Your task to perform on an android device: Go to Yahoo.com Image 0: 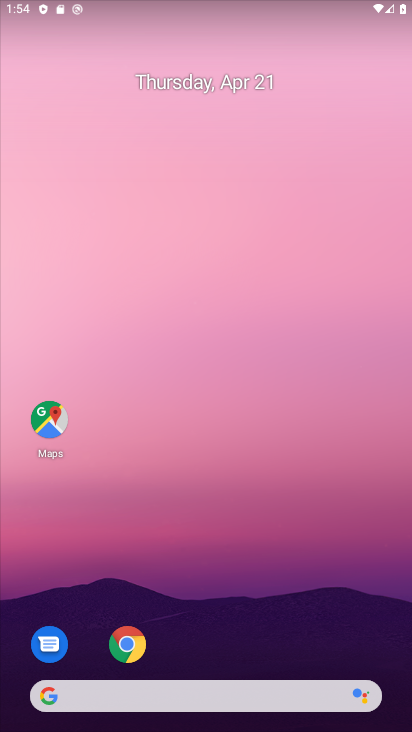
Step 0: click (142, 647)
Your task to perform on an android device: Go to Yahoo.com Image 1: 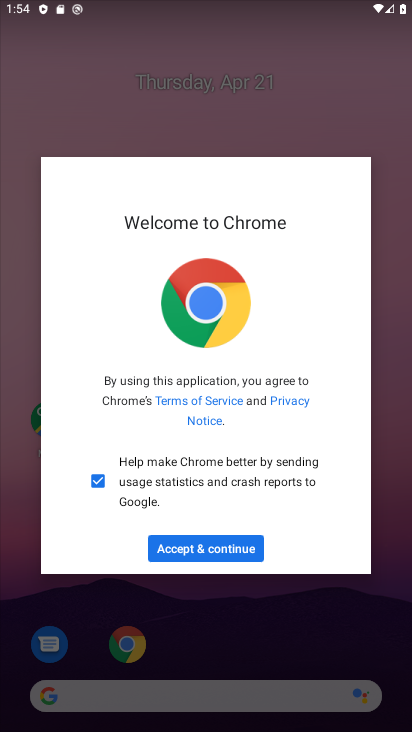
Step 1: click (211, 543)
Your task to perform on an android device: Go to Yahoo.com Image 2: 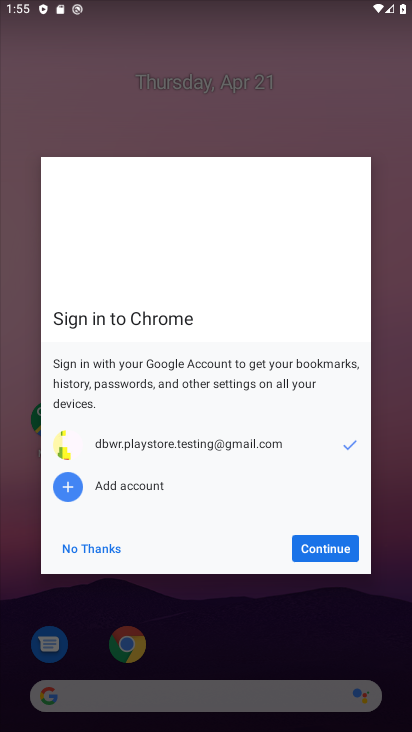
Step 2: click (322, 547)
Your task to perform on an android device: Go to Yahoo.com Image 3: 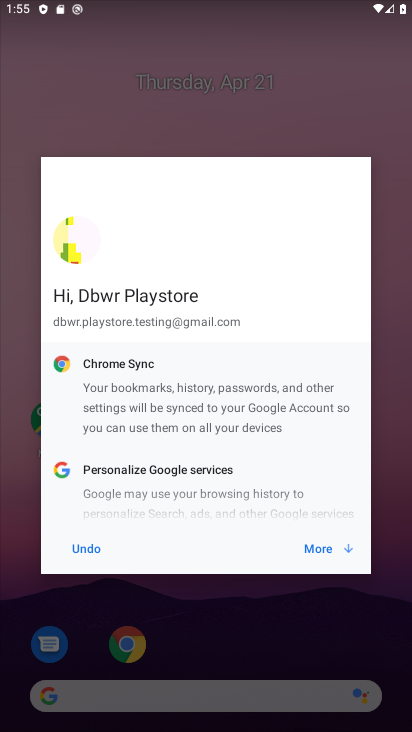
Step 3: click (321, 546)
Your task to perform on an android device: Go to Yahoo.com Image 4: 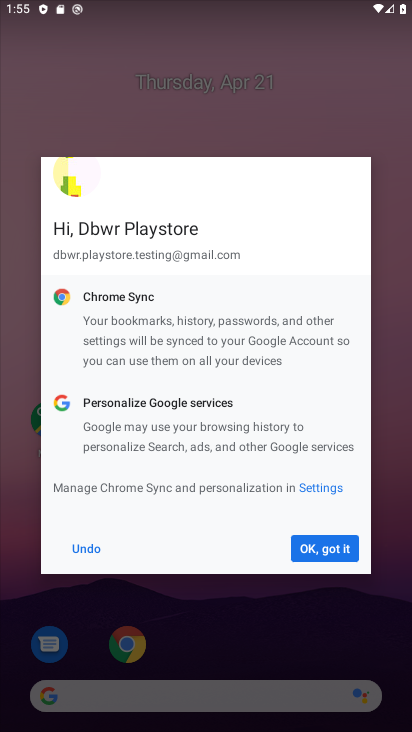
Step 4: click (321, 546)
Your task to perform on an android device: Go to Yahoo.com Image 5: 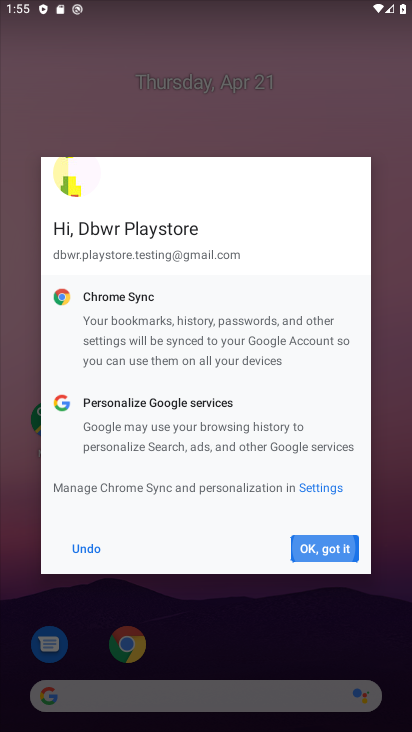
Step 5: click (320, 545)
Your task to perform on an android device: Go to Yahoo.com Image 6: 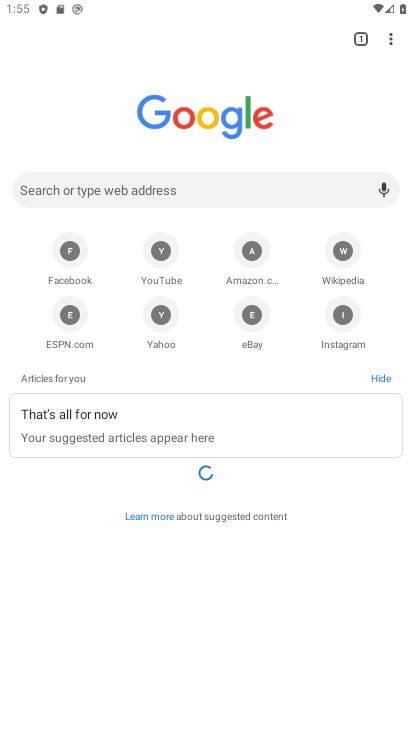
Step 6: click (195, 184)
Your task to perform on an android device: Go to Yahoo.com Image 7: 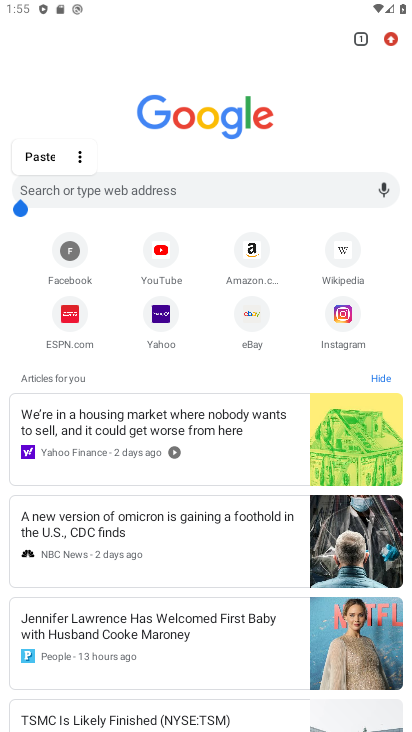
Step 7: click (70, 189)
Your task to perform on an android device: Go to Yahoo.com Image 8: 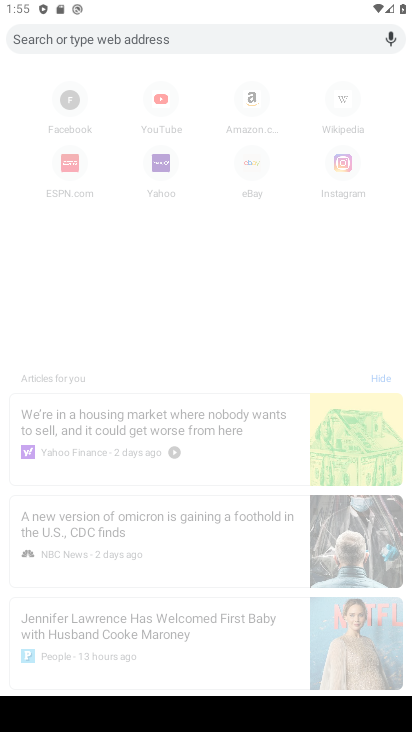
Step 8: type "ya"
Your task to perform on an android device: Go to Yahoo.com Image 9: 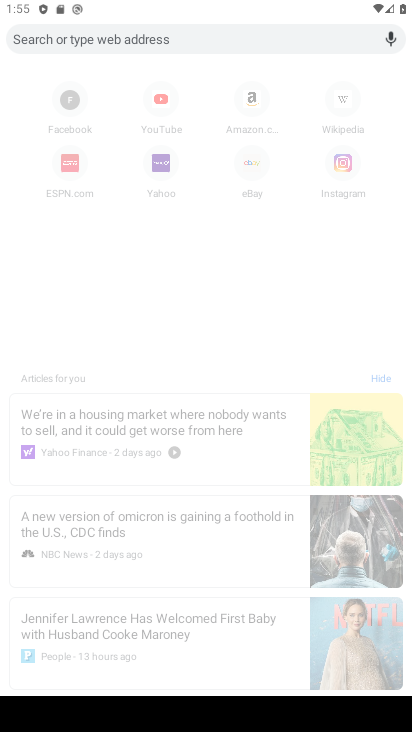
Step 9: click (282, 309)
Your task to perform on an android device: Go to Yahoo.com Image 10: 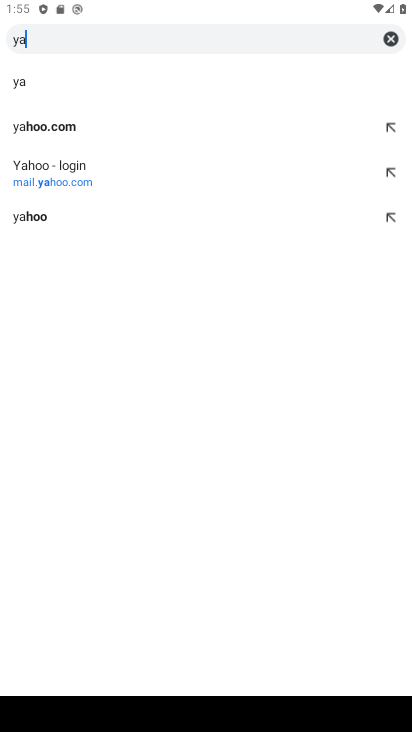
Step 10: click (388, 38)
Your task to perform on an android device: Go to Yahoo.com Image 11: 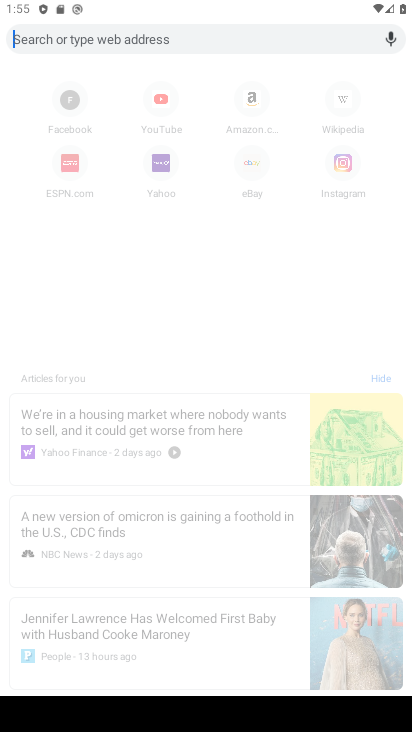
Step 11: click (187, 355)
Your task to perform on an android device: Go to Yahoo.com Image 12: 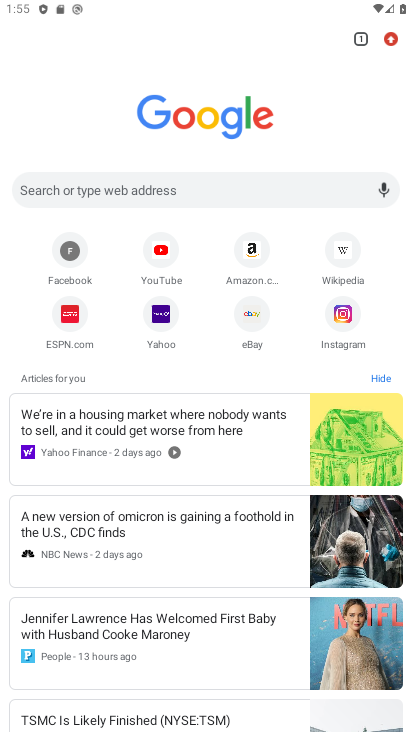
Step 12: click (156, 317)
Your task to perform on an android device: Go to Yahoo.com Image 13: 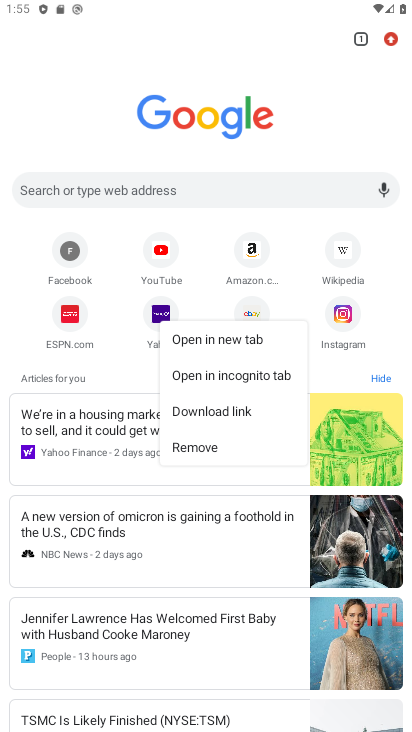
Step 13: click (165, 303)
Your task to perform on an android device: Go to Yahoo.com Image 14: 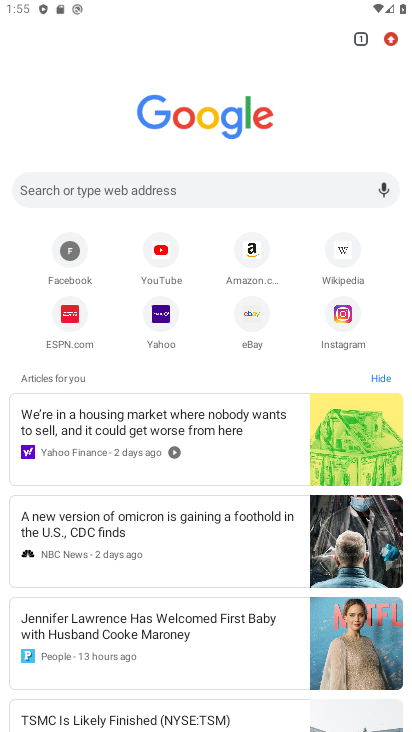
Step 14: click (161, 319)
Your task to perform on an android device: Go to Yahoo.com Image 15: 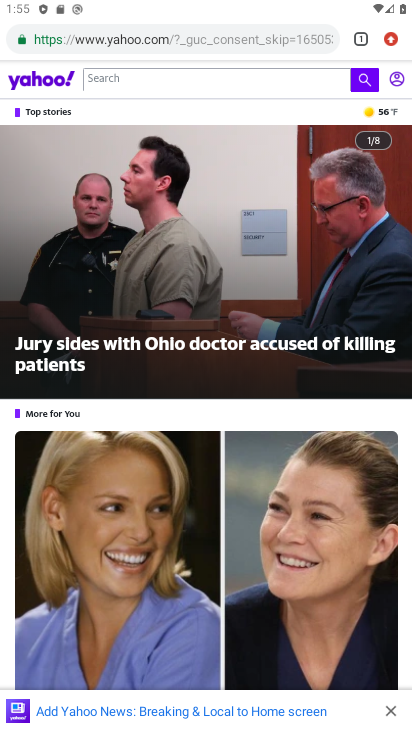
Step 15: task complete